Your task to perform on an android device: Show the shopping cart on newegg. Image 0: 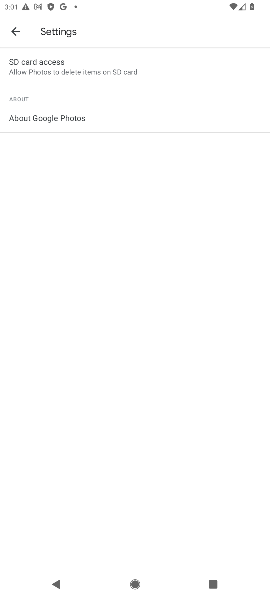
Step 0: press home button
Your task to perform on an android device: Show the shopping cart on newegg. Image 1: 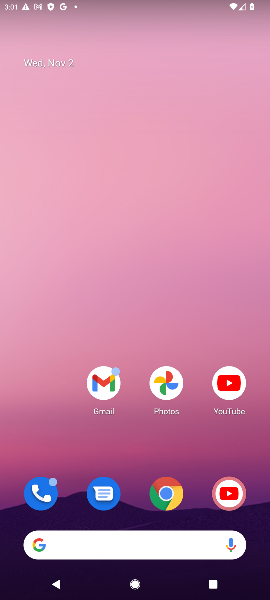
Step 1: drag from (136, 521) to (121, 184)
Your task to perform on an android device: Show the shopping cart on newegg. Image 2: 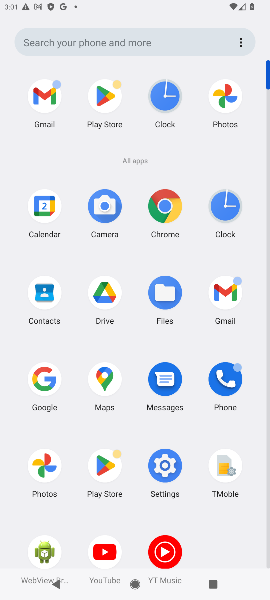
Step 2: click (39, 369)
Your task to perform on an android device: Show the shopping cart on newegg. Image 3: 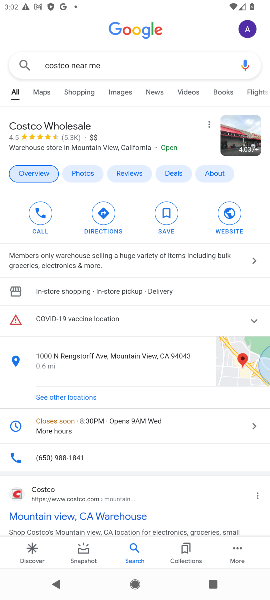
Step 3: click (107, 62)
Your task to perform on an android device: Show the shopping cart on newegg. Image 4: 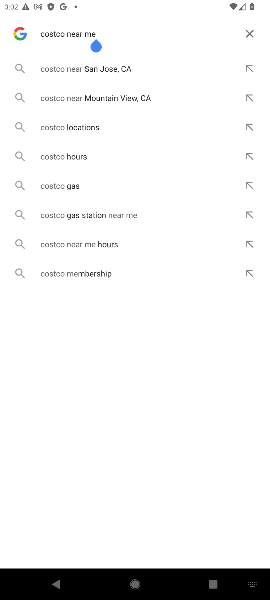
Step 4: click (250, 31)
Your task to perform on an android device: Show the shopping cart on newegg. Image 5: 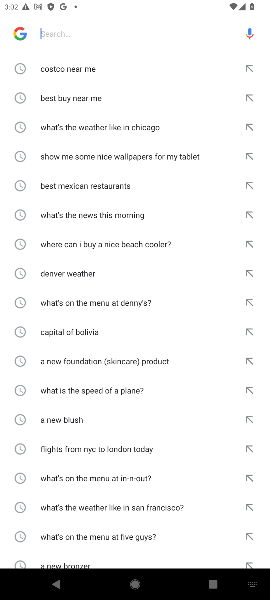
Step 5: click (63, 26)
Your task to perform on an android device: Show the shopping cart on newegg. Image 6: 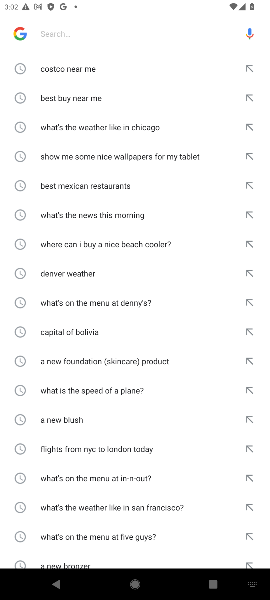
Step 6: type "newegg "
Your task to perform on an android device: Show the shopping cart on newegg. Image 7: 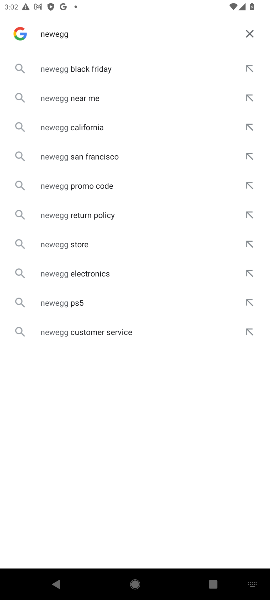
Step 7: click (77, 98)
Your task to perform on an android device: Show the shopping cart on newegg. Image 8: 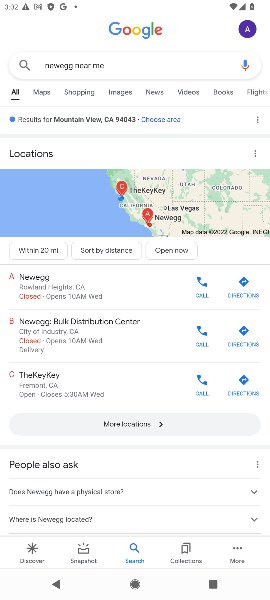
Step 8: drag from (42, 479) to (94, 183)
Your task to perform on an android device: Show the shopping cart on newegg. Image 9: 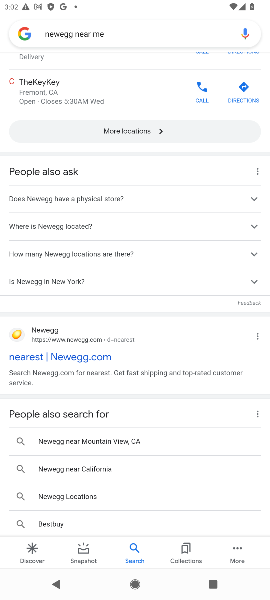
Step 9: click (16, 334)
Your task to perform on an android device: Show the shopping cart on newegg. Image 10: 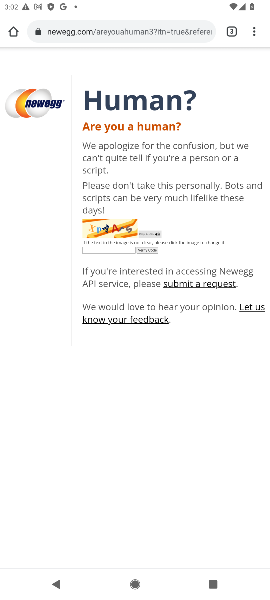
Step 10: press back button
Your task to perform on an android device: Show the shopping cart on newegg. Image 11: 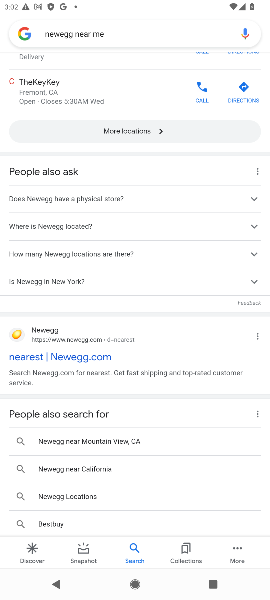
Step 11: drag from (56, 490) to (131, 176)
Your task to perform on an android device: Show the shopping cart on newegg. Image 12: 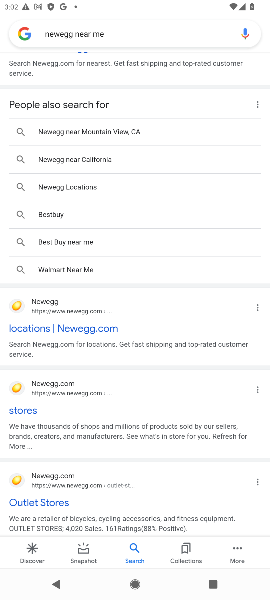
Step 12: click (13, 309)
Your task to perform on an android device: Show the shopping cart on newegg. Image 13: 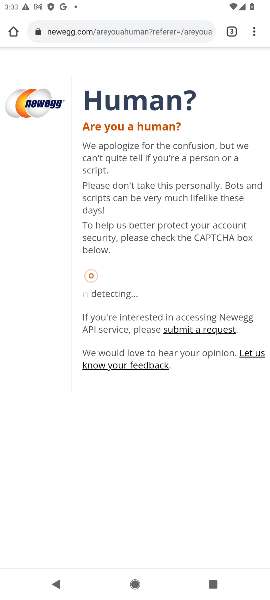
Step 13: press back button
Your task to perform on an android device: Show the shopping cart on newegg. Image 14: 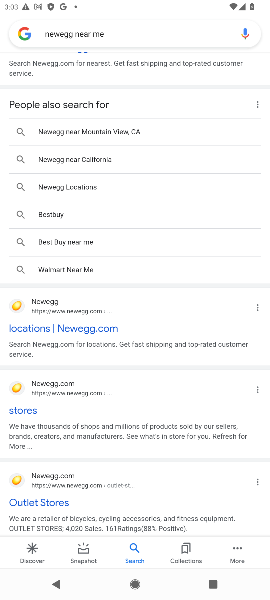
Step 14: click (81, 410)
Your task to perform on an android device: Show the shopping cart on newegg. Image 15: 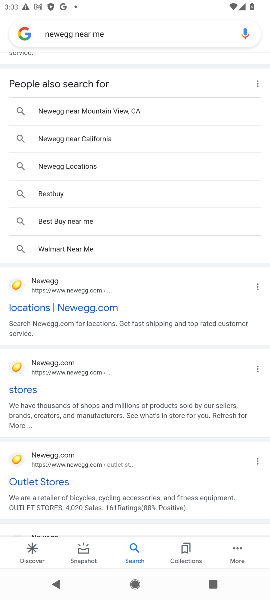
Step 15: click (20, 460)
Your task to perform on an android device: Show the shopping cart on newegg. Image 16: 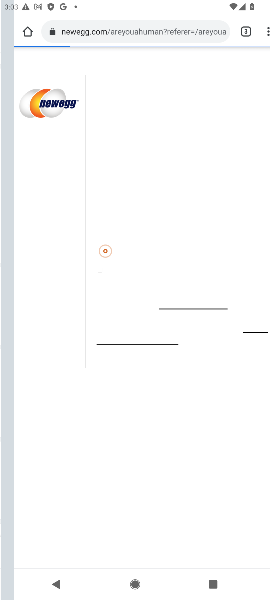
Step 16: click (18, 459)
Your task to perform on an android device: Show the shopping cart on newegg. Image 17: 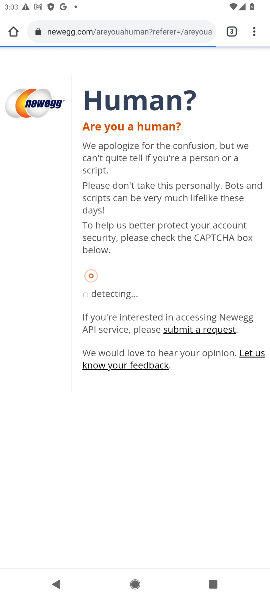
Step 17: click (18, 459)
Your task to perform on an android device: Show the shopping cart on newegg. Image 18: 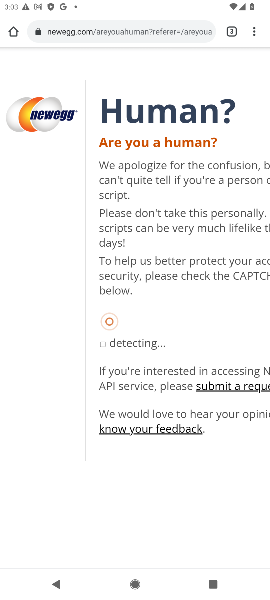
Step 18: press back button
Your task to perform on an android device: Show the shopping cart on newegg. Image 19: 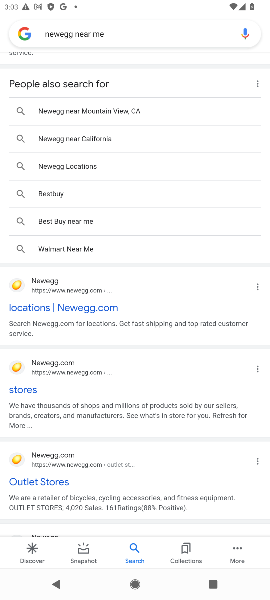
Step 19: drag from (139, 150) to (120, 581)
Your task to perform on an android device: Show the shopping cart on newegg. Image 20: 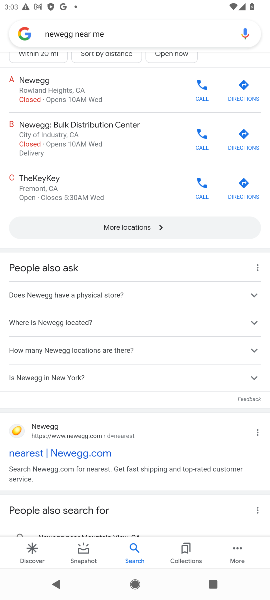
Step 20: drag from (104, 149) to (77, 541)
Your task to perform on an android device: Show the shopping cart on newegg. Image 21: 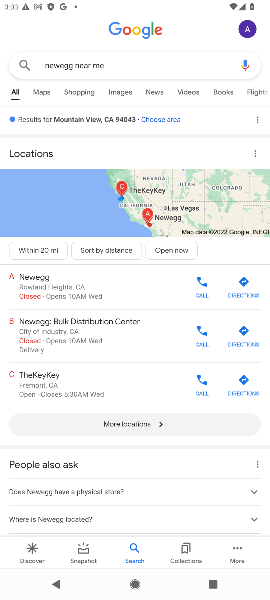
Step 21: drag from (54, 485) to (95, 188)
Your task to perform on an android device: Show the shopping cart on newegg. Image 22: 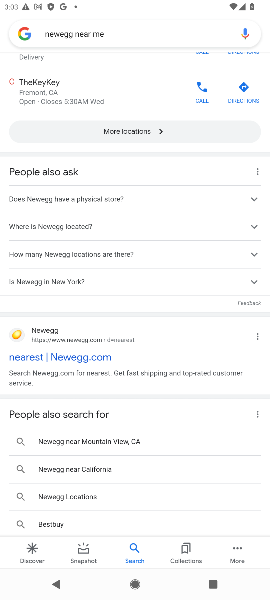
Step 22: click (47, 327)
Your task to perform on an android device: Show the shopping cart on newegg. Image 23: 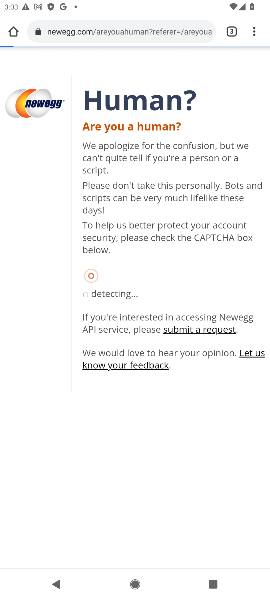
Step 23: press back button
Your task to perform on an android device: Show the shopping cart on newegg. Image 24: 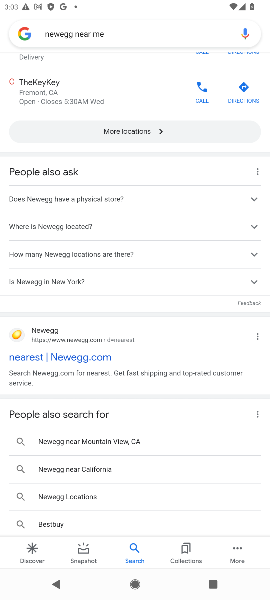
Step 24: drag from (104, 509) to (169, 110)
Your task to perform on an android device: Show the shopping cart on newegg. Image 25: 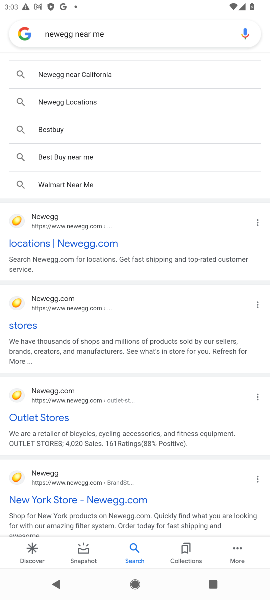
Step 25: drag from (92, 469) to (149, 139)
Your task to perform on an android device: Show the shopping cart on newegg. Image 26: 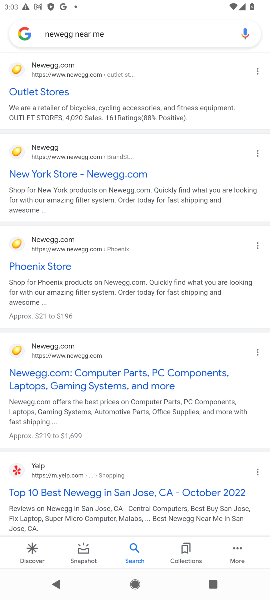
Step 26: click (15, 347)
Your task to perform on an android device: Show the shopping cart on newegg. Image 27: 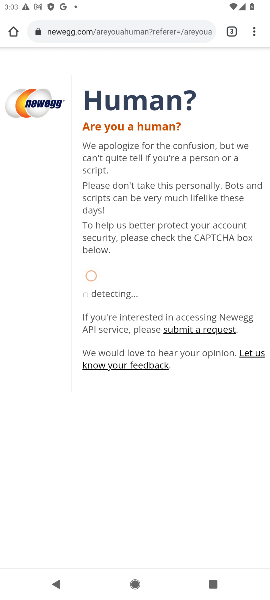
Step 27: press back button
Your task to perform on an android device: Show the shopping cart on newegg. Image 28: 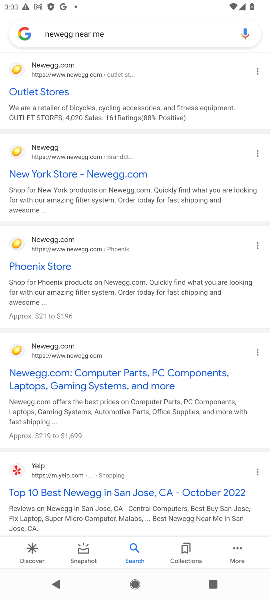
Step 28: press back button
Your task to perform on an android device: Show the shopping cart on newegg. Image 29: 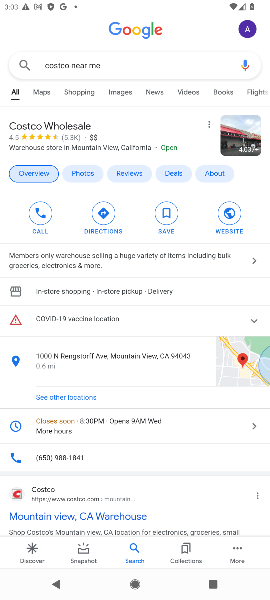
Step 29: click (132, 68)
Your task to perform on an android device: Show the shopping cart on newegg. Image 30: 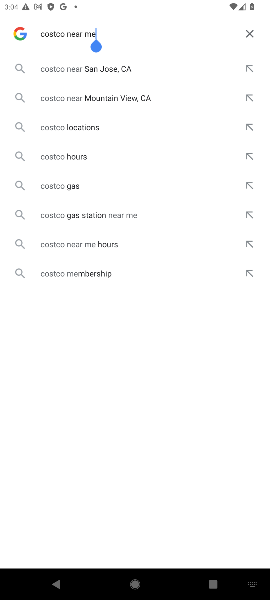
Step 30: click (245, 33)
Your task to perform on an android device: Show the shopping cart on newegg. Image 31: 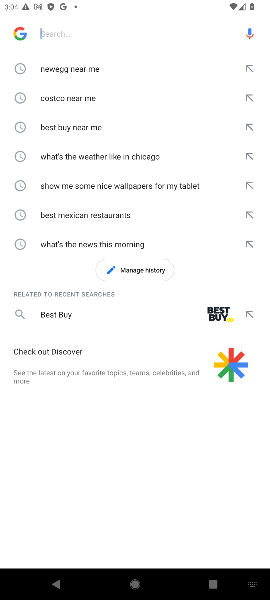
Step 31: click (52, 26)
Your task to perform on an android device: Show the shopping cart on newegg. Image 32: 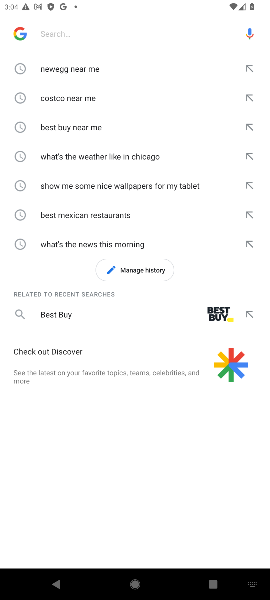
Step 32: type "newegg "
Your task to perform on an android device: Show the shopping cart on newegg. Image 33: 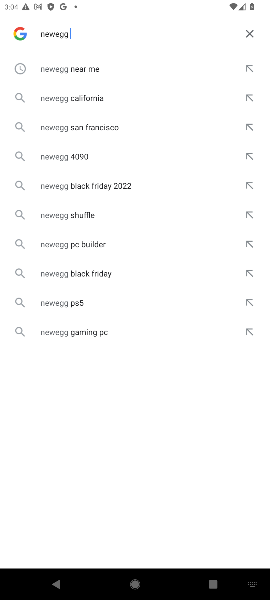
Step 33: click (70, 70)
Your task to perform on an android device: Show the shopping cart on newegg. Image 34: 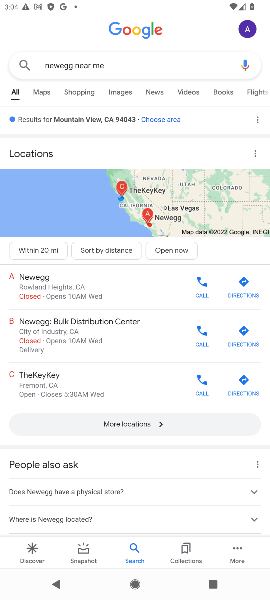
Step 34: drag from (133, 510) to (153, 135)
Your task to perform on an android device: Show the shopping cart on newegg. Image 35: 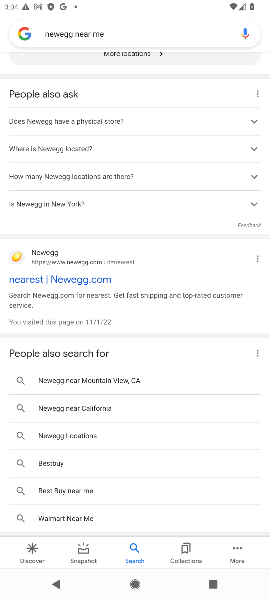
Step 35: click (11, 259)
Your task to perform on an android device: Show the shopping cart on newegg. Image 36: 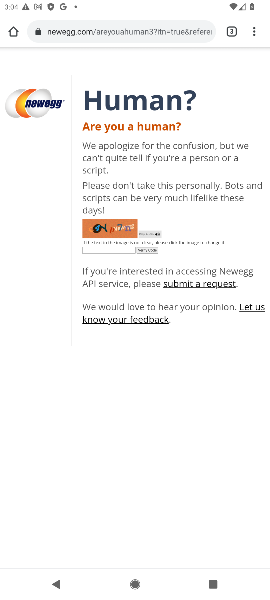
Step 36: task complete